Your task to perform on an android device: What's the weather? Image 0: 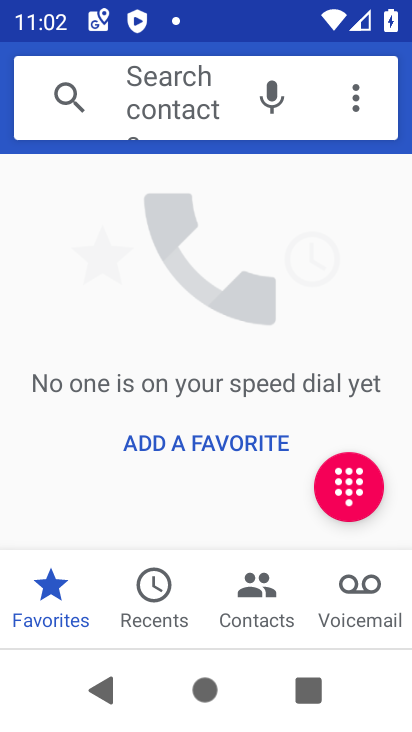
Step 0: press home button
Your task to perform on an android device: What's the weather? Image 1: 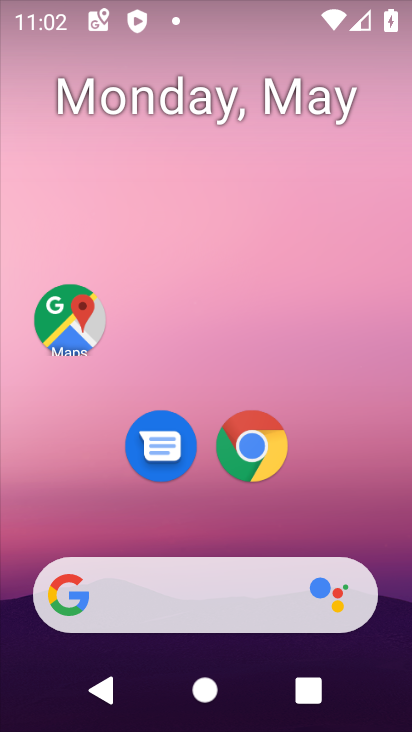
Step 1: drag from (26, 234) to (409, 220)
Your task to perform on an android device: What's the weather? Image 2: 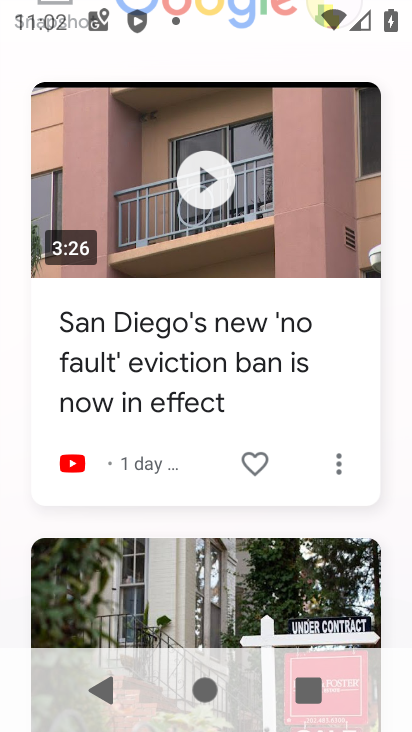
Step 2: press home button
Your task to perform on an android device: What's the weather? Image 3: 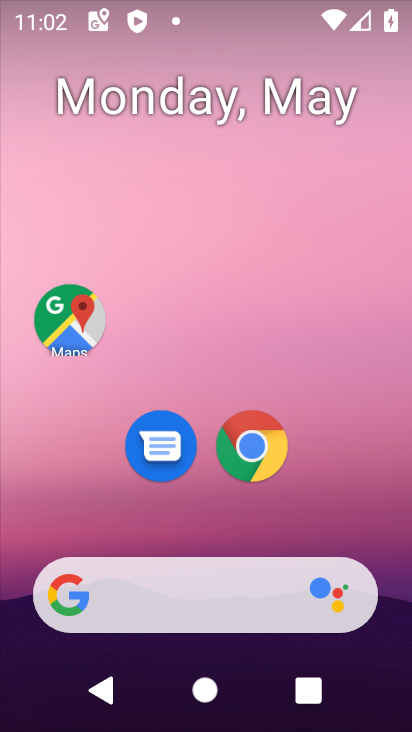
Step 3: drag from (162, 632) to (80, 9)
Your task to perform on an android device: What's the weather? Image 4: 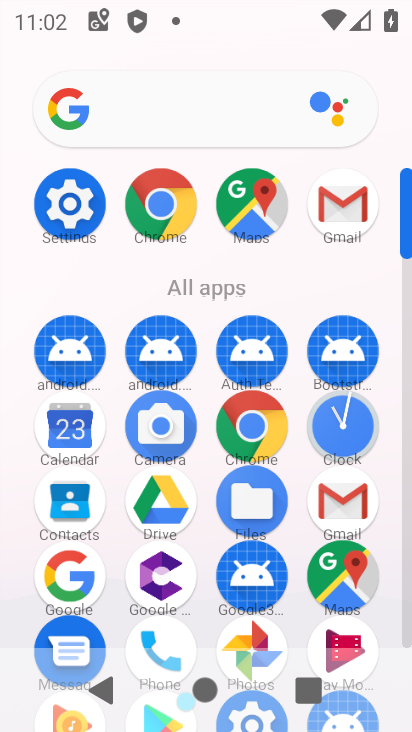
Step 4: click (71, 560)
Your task to perform on an android device: What's the weather? Image 5: 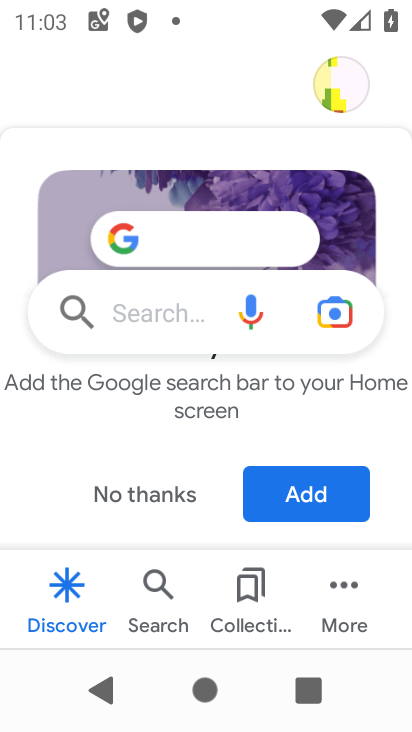
Step 5: click (167, 490)
Your task to perform on an android device: What's the weather? Image 6: 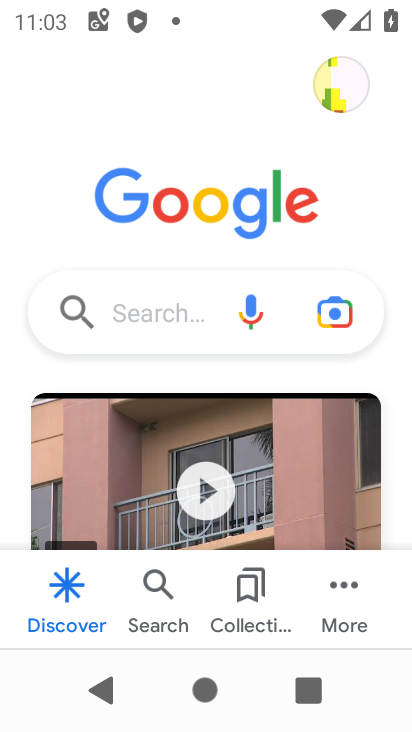
Step 6: click (144, 610)
Your task to perform on an android device: What's the weather? Image 7: 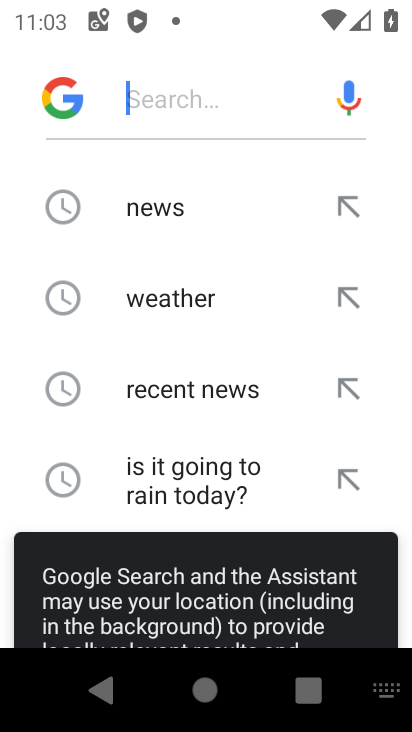
Step 7: click (173, 296)
Your task to perform on an android device: What's the weather? Image 8: 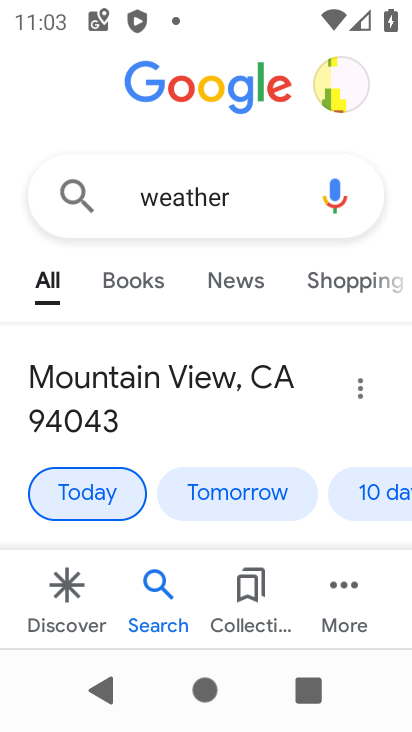
Step 8: task complete